Your task to perform on an android device: Open Youtube and go to the subscriptions tab Image 0: 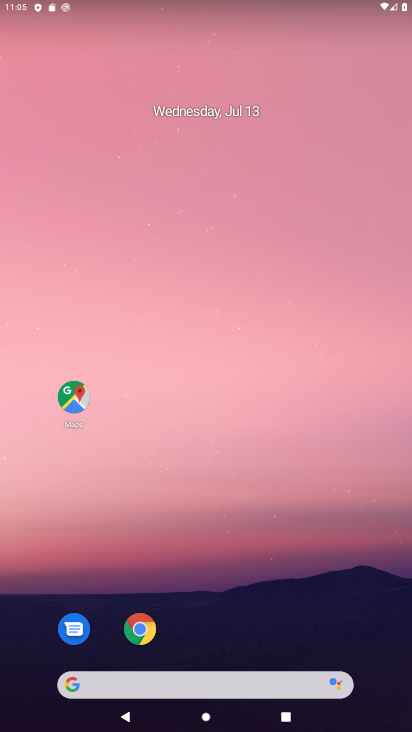
Step 0: drag from (181, 663) to (328, 177)
Your task to perform on an android device: Open Youtube and go to the subscriptions tab Image 1: 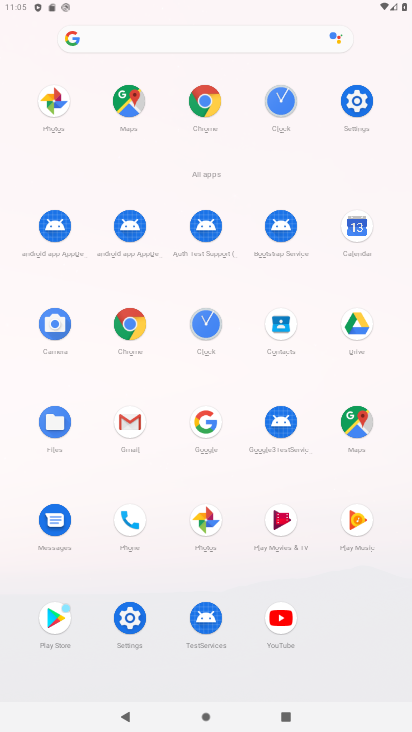
Step 1: click (274, 623)
Your task to perform on an android device: Open Youtube and go to the subscriptions tab Image 2: 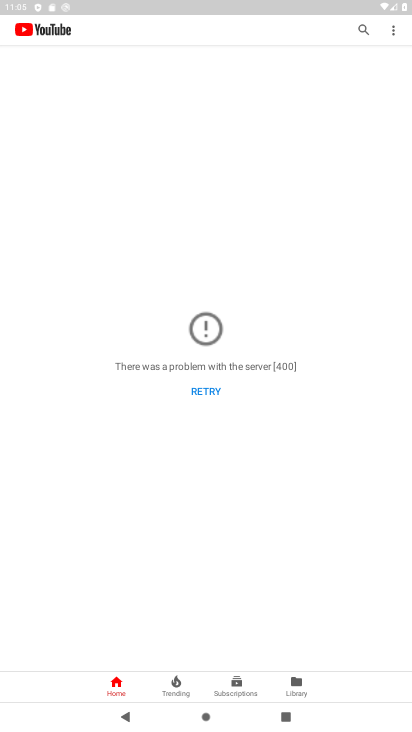
Step 2: click (247, 693)
Your task to perform on an android device: Open Youtube and go to the subscriptions tab Image 3: 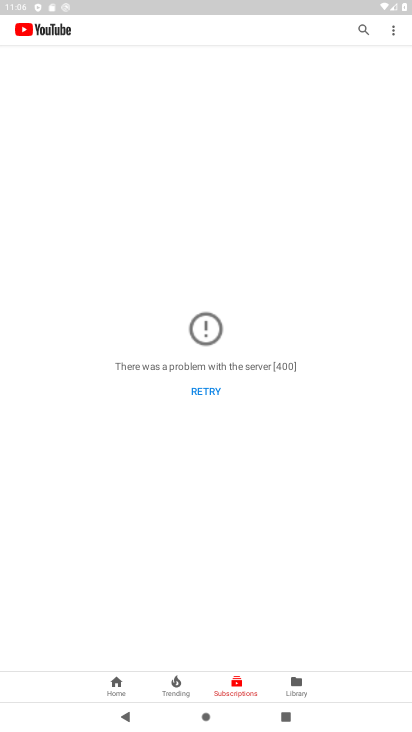
Step 3: task complete